Your task to perform on an android device: What's the weather today? Image 0: 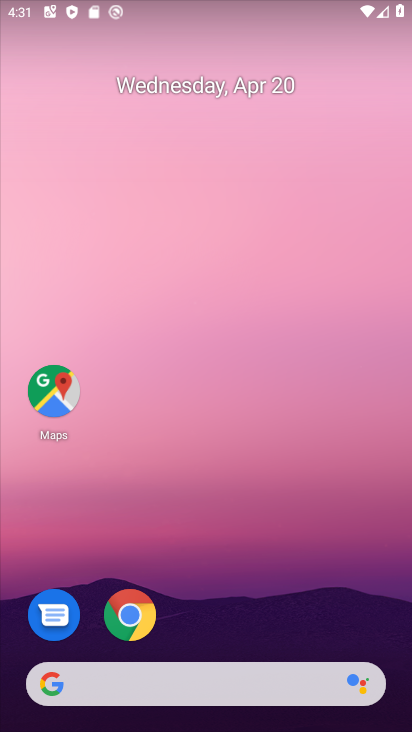
Step 0: click (173, 688)
Your task to perform on an android device: What's the weather today? Image 1: 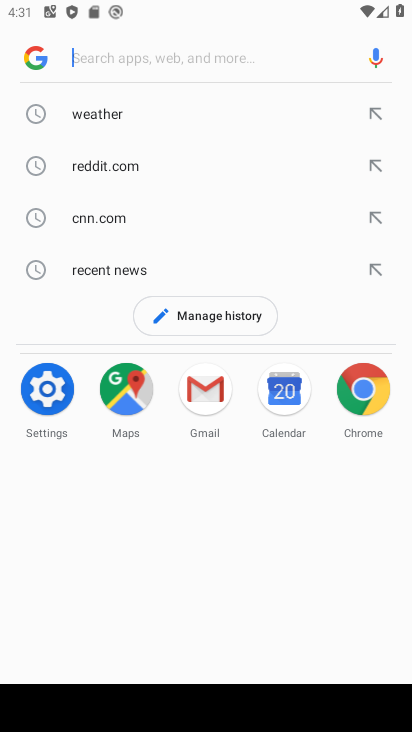
Step 1: click (105, 116)
Your task to perform on an android device: What's the weather today? Image 2: 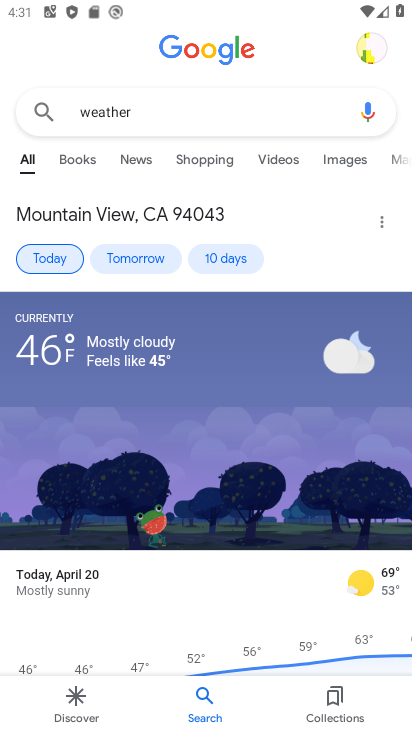
Step 2: task complete